Your task to perform on an android device: change notifications settings Image 0: 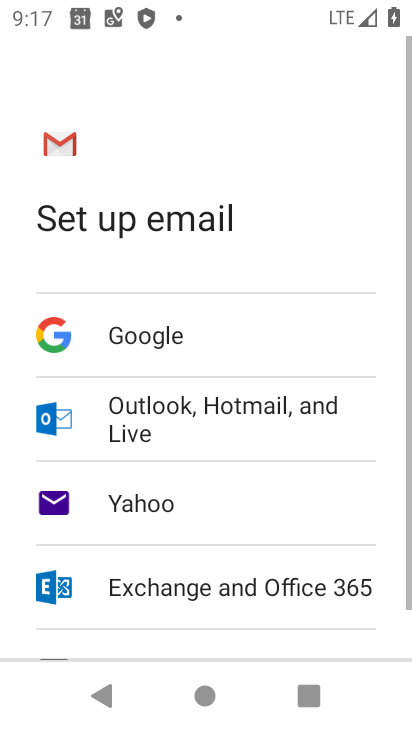
Step 0: press home button
Your task to perform on an android device: change notifications settings Image 1: 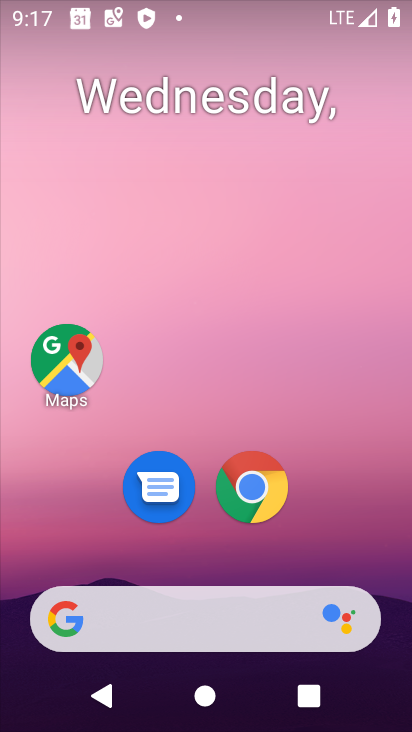
Step 1: drag from (271, 632) to (205, 313)
Your task to perform on an android device: change notifications settings Image 2: 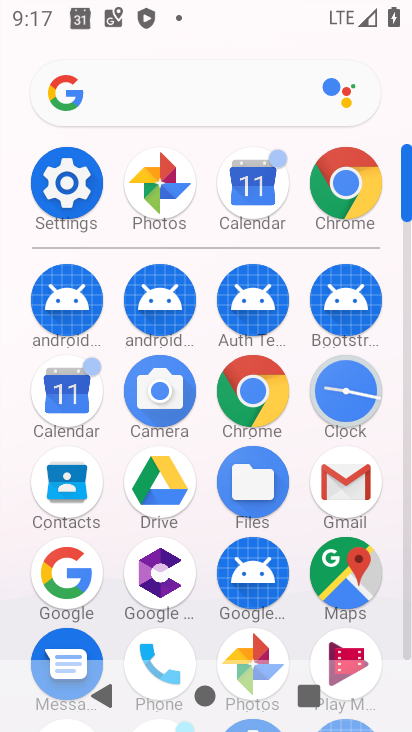
Step 2: click (72, 173)
Your task to perform on an android device: change notifications settings Image 3: 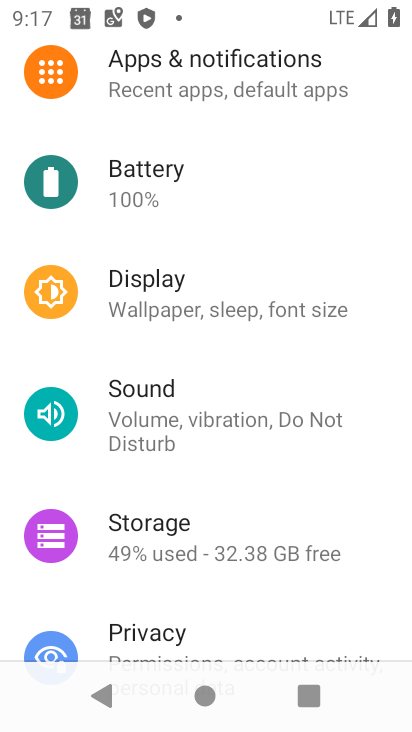
Step 3: drag from (204, 160) to (245, 392)
Your task to perform on an android device: change notifications settings Image 4: 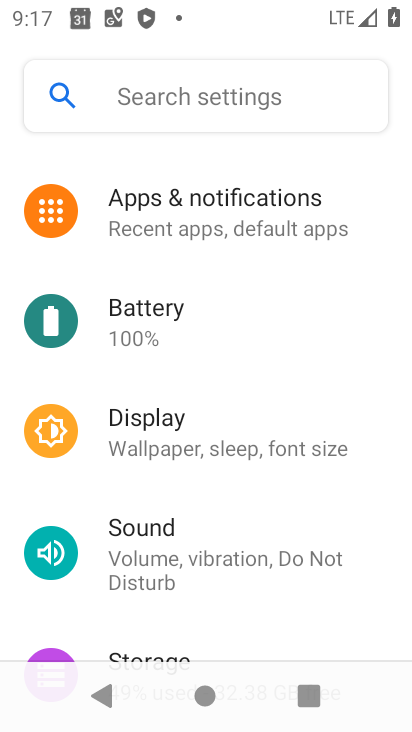
Step 4: click (190, 102)
Your task to perform on an android device: change notifications settings Image 5: 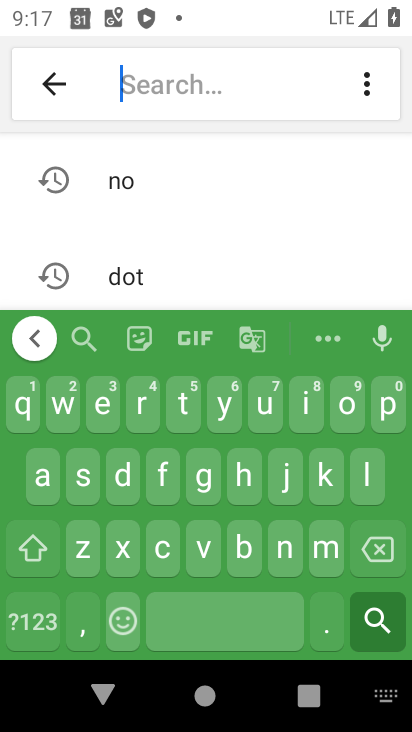
Step 5: click (188, 192)
Your task to perform on an android device: change notifications settings Image 6: 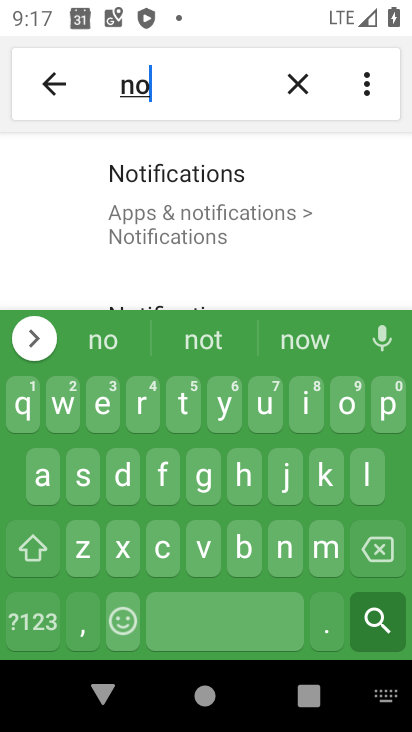
Step 6: click (188, 192)
Your task to perform on an android device: change notifications settings Image 7: 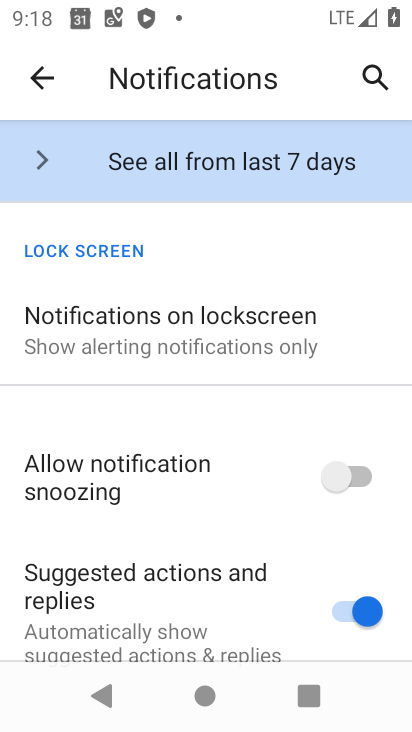
Step 7: click (126, 330)
Your task to perform on an android device: change notifications settings Image 8: 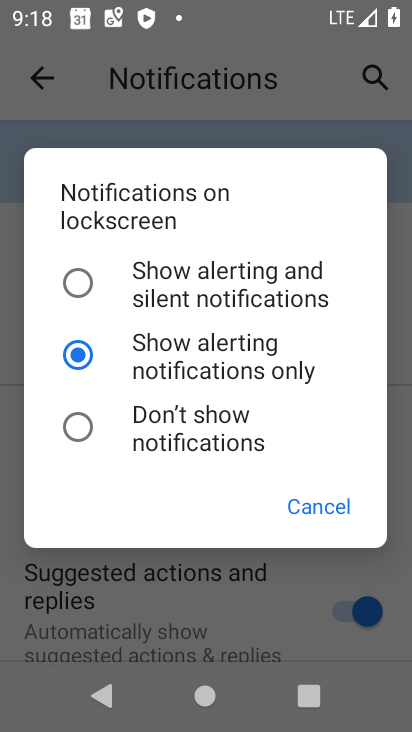
Step 8: click (174, 293)
Your task to perform on an android device: change notifications settings Image 9: 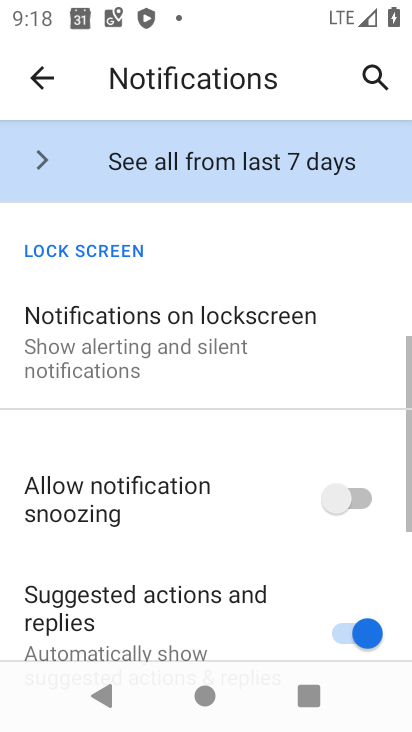
Step 9: task complete